Your task to perform on an android device: see creations saved in the google photos Image 0: 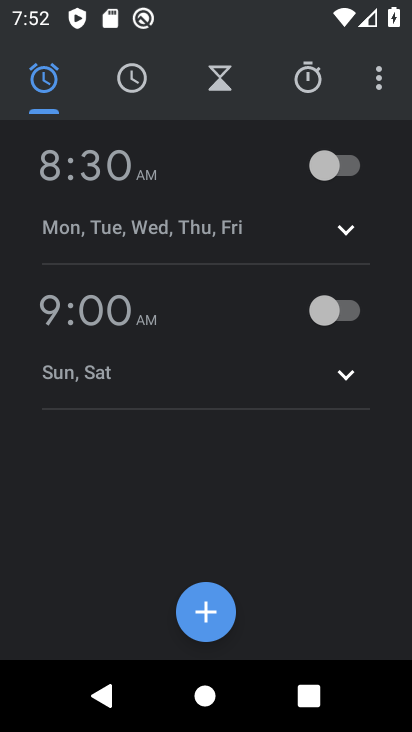
Step 0: press home button
Your task to perform on an android device: see creations saved in the google photos Image 1: 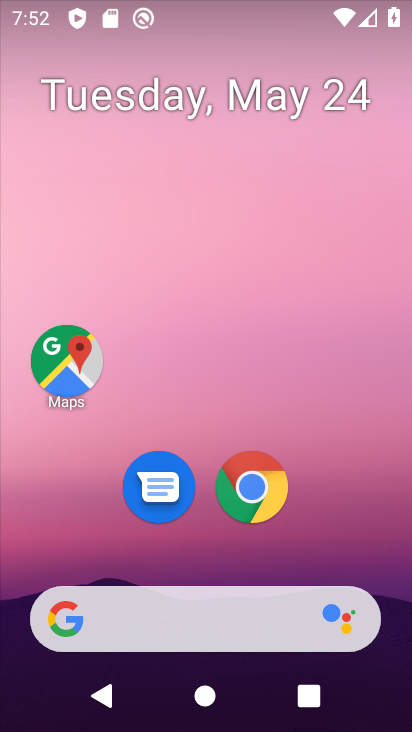
Step 1: drag from (16, 629) to (224, 132)
Your task to perform on an android device: see creations saved in the google photos Image 2: 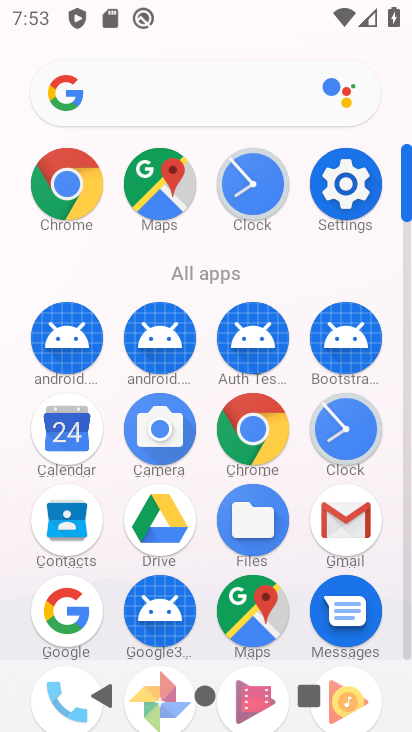
Step 2: drag from (6, 621) to (159, 232)
Your task to perform on an android device: see creations saved in the google photos Image 3: 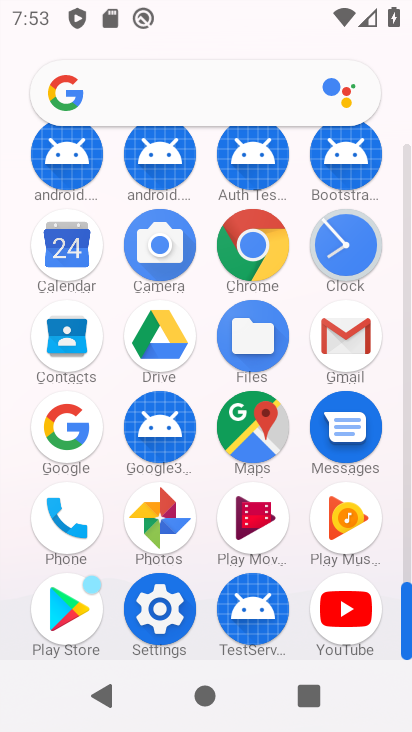
Step 3: click (162, 522)
Your task to perform on an android device: see creations saved in the google photos Image 4: 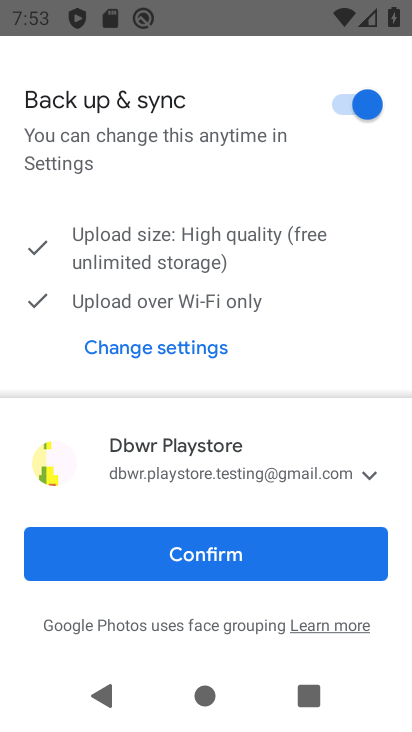
Step 4: click (168, 550)
Your task to perform on an android device: see creations saved in the google photos Image 5: 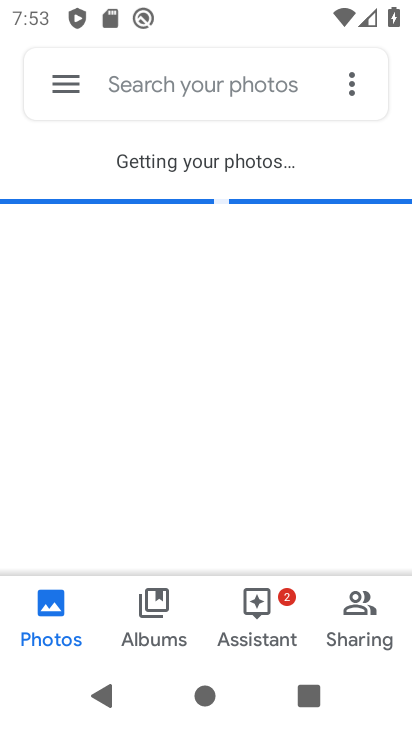
Step 5: click (162, 75)
Your task to perform on an android device: see creations saved in the google photos Image 6: 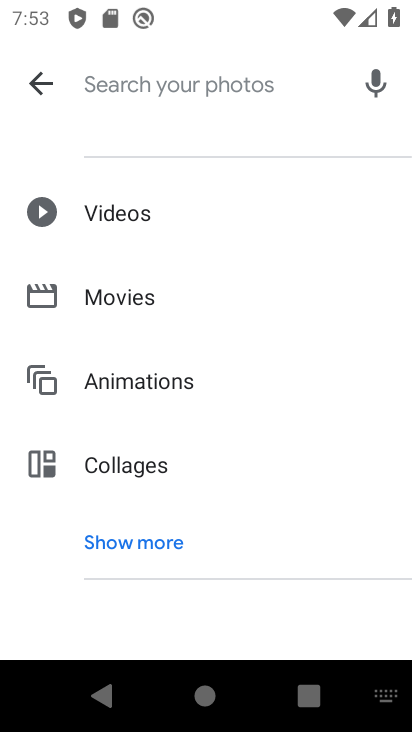
Step 6: click (111, 545)
Your task to perform on an android device: see creations saved in the google photos Image 7: 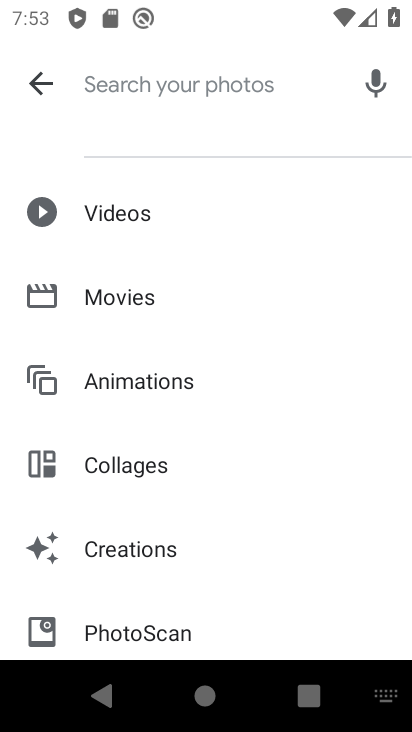
Step 7: click (109, 542)
Your task to perform on an android device: see creations saved in the google photos Image 8: 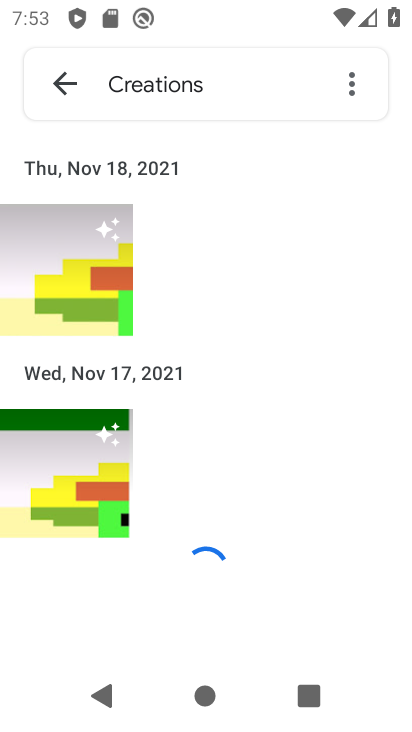
Step 8: task complete